Your task to perform on an android device: Open Reddit.com Image 0: 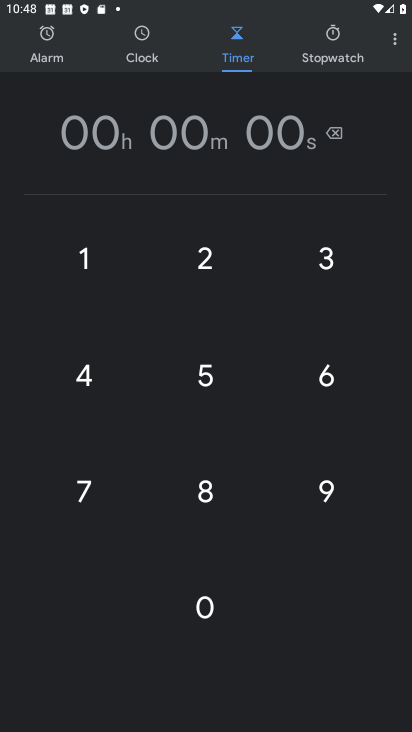
Step 0: drag from (149, 645) to (315, 86)
Your task to perform on an android device: Open Reddit.com Image 1: 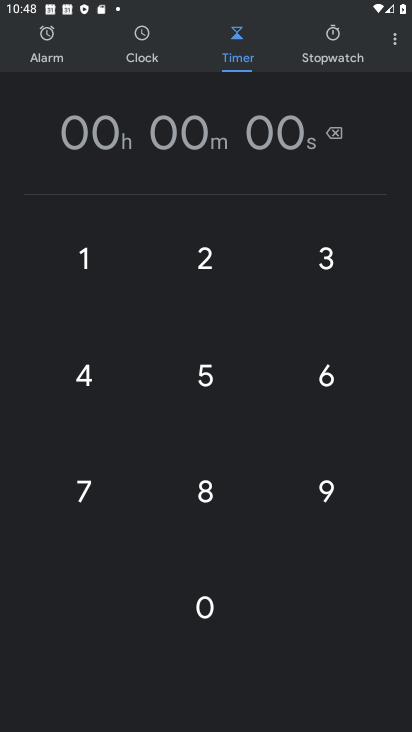
Step 1: press home button
Your task to perform on an android device: Open Reddit.com Image 2: 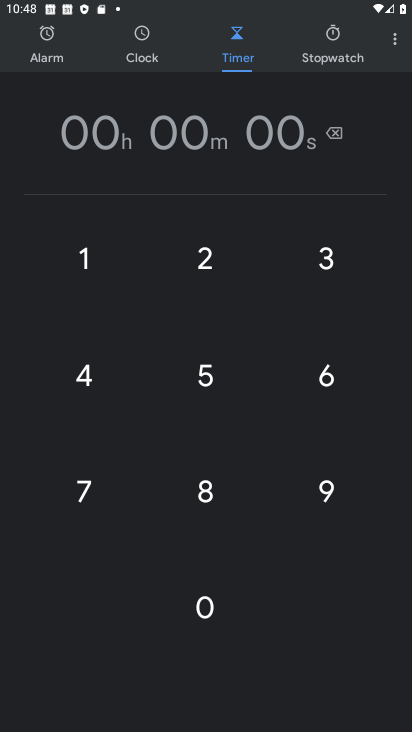
Step 2: press home button
Your task to perform on an android device: Open Reddit.com Image 3: 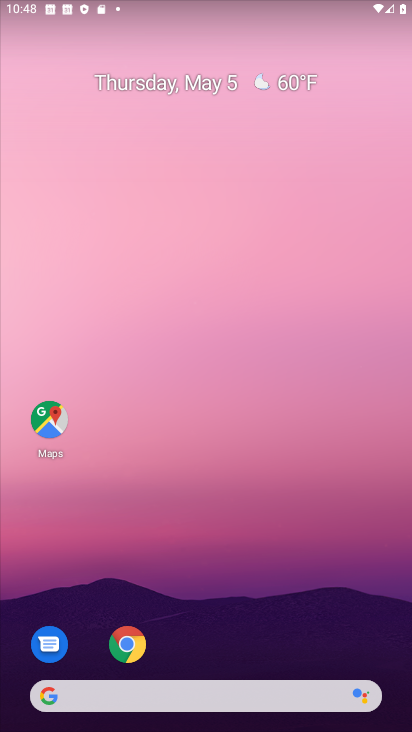
Step 3: drag from (189, 634) to (240, 115)
Your task to perform on an android device: Open Reddit.com Image 4: 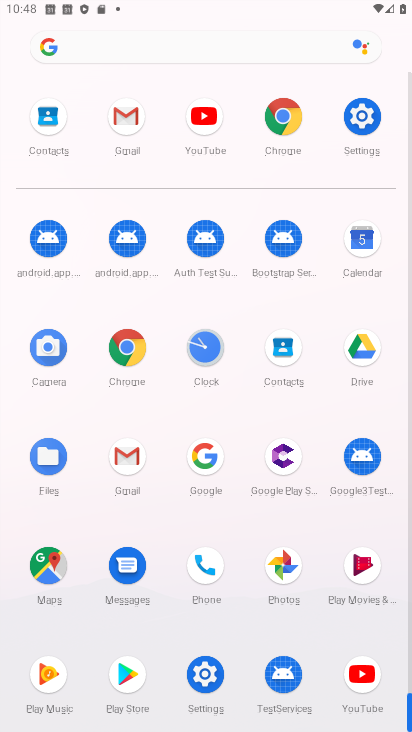
Step 4: click (375, 125)
Your task to perform on an android device: Open Reddit.com Image 5: 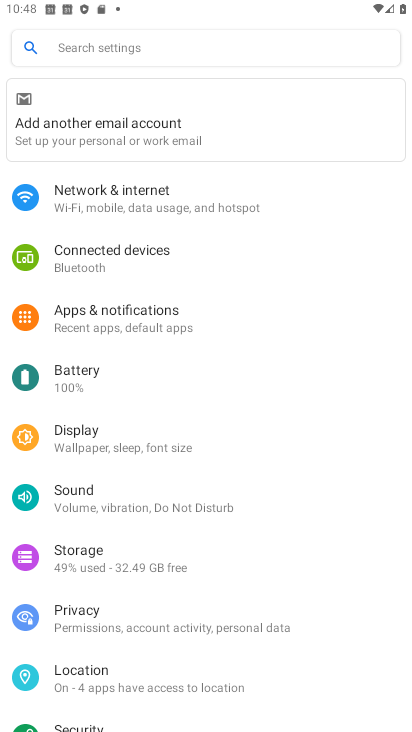
Step 5: drag from (194, 639) to (261, 223)
Your task to perform on an android device: Open Reddit.com Image 6: 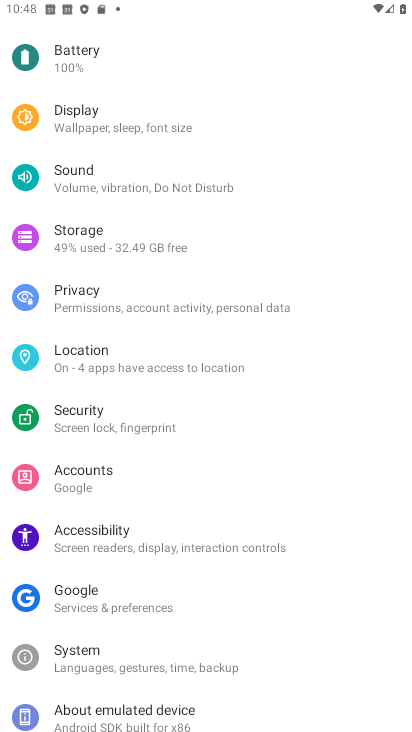
Step 6: drag from (197, 698) to (223, 144)
Your task to perform on an android device: Open Reddit.com Image 7: 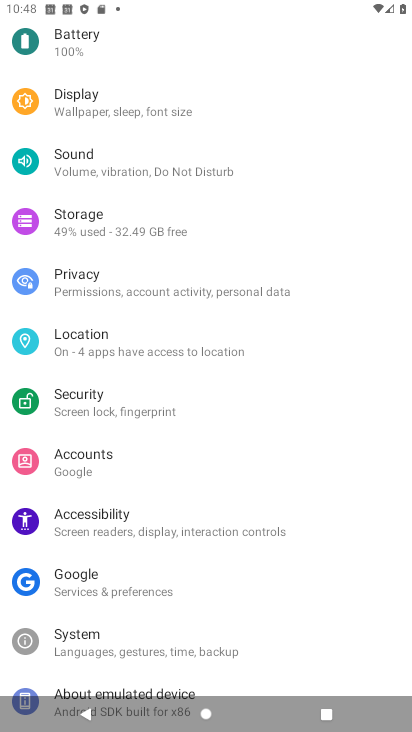
Step 7: drag from (182, 670) to (189, 134)
Your task to perform on an android device: Open Reddit.com Image 8: 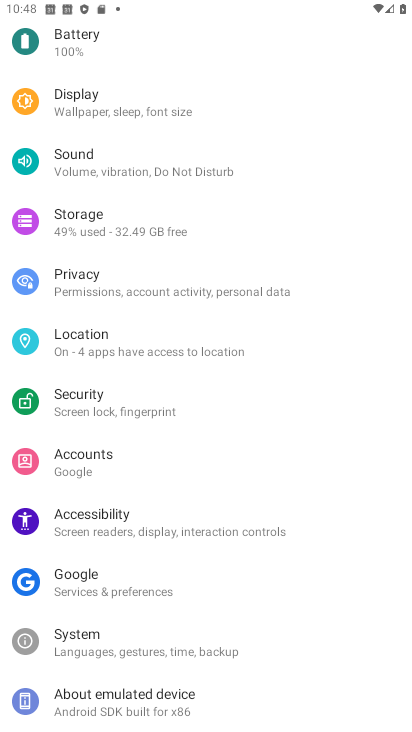
Step 8: drag from (184, 82) to (212, 179)
Your task to perform on an android device: Open Reddit.com Image 9: 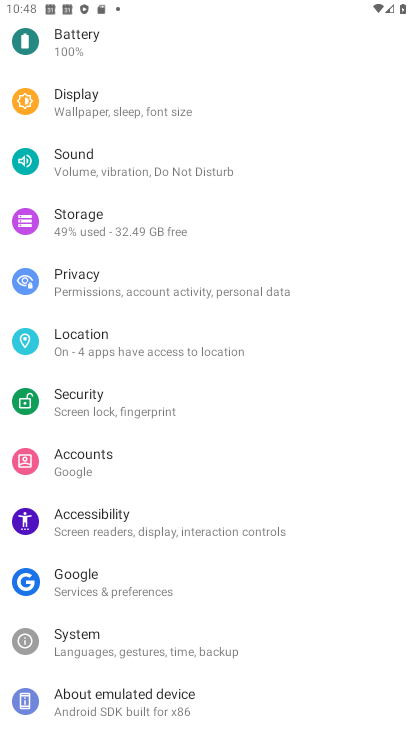
Step 9: drag from (142, 657) to (218, 454)
Your task to perform on an android device: Open Reddit.com Image 10: 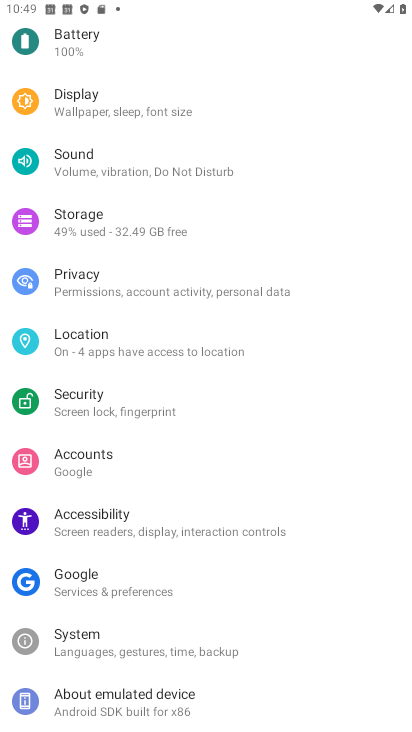
Step 10: drag from (183, 703) to (177, 294)
Your task to perform on an android device: Open Reddit.com Image 11: 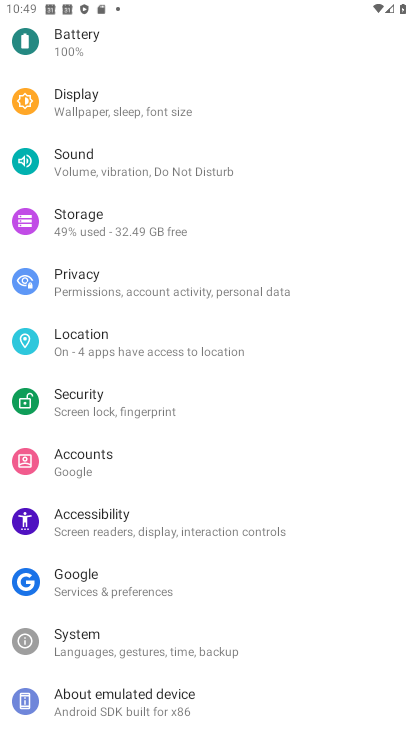
Step 11: drag from (230, 577) to (257, 316)
Your task to perform on an android device: Open Reddit.com Image 12: 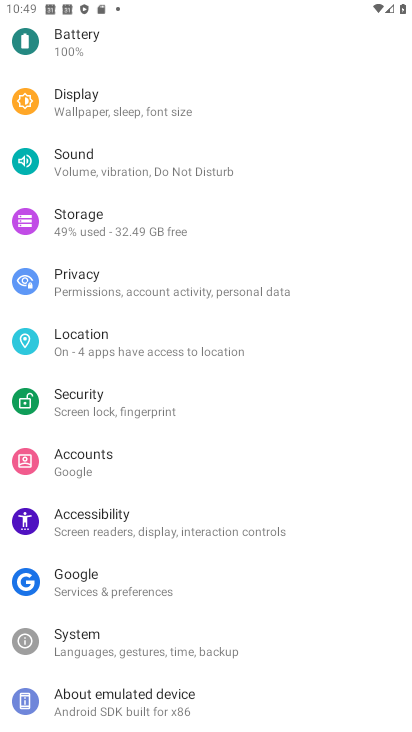
Step 12: press home button
Your task to perform on an android device: Open Reddit.com Image 13: 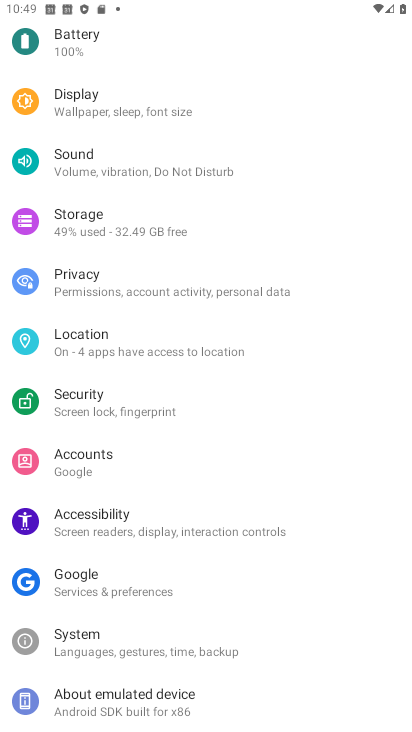
Step 13: press home button
Your task to perform on an android device: Open Reddit.com Image 14: 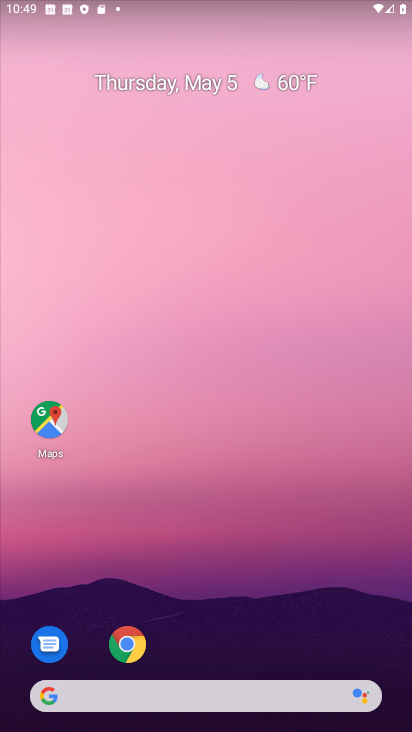
Step 14: drag from (211, 665) to (259, 320)
Your task to perform on an android device: Open Reddit.com Image 15: 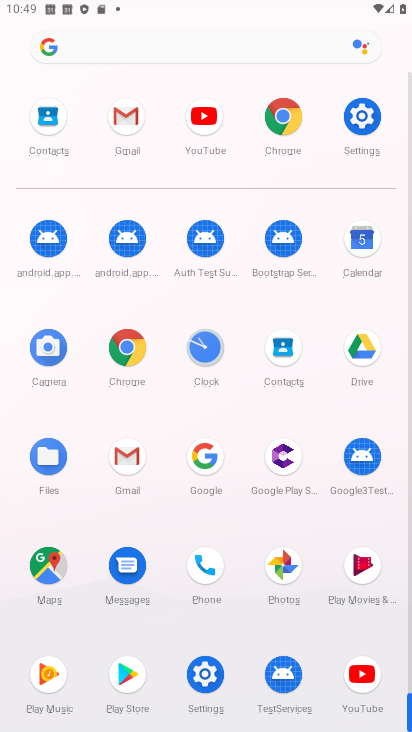
Step 15: drag from (174, 629) to (168, 304)
Your task to perform on an android device: Open Reddit.com Image 16: 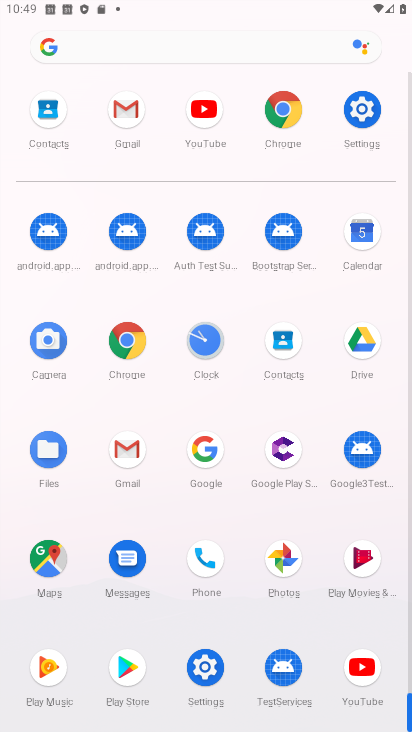
Step 16: drag from (164, 634) to (189, 314)
Your task to perform on an android device: Open Reddit.com Image 17: 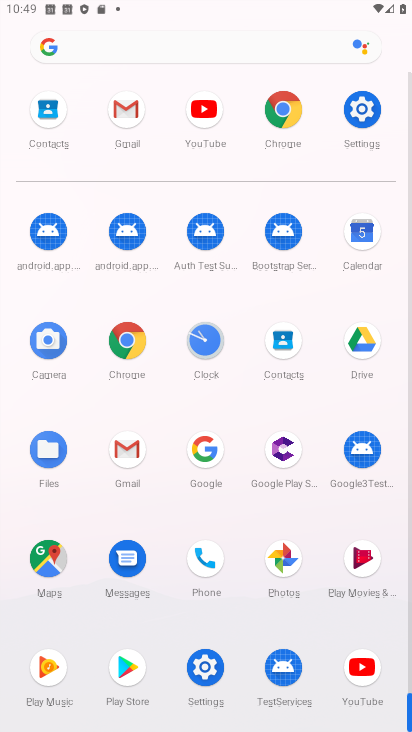
Step 17: drag from (168, 566) to (237, 161)
Your task to perform on an android device: Open Reddit.com Image 18: 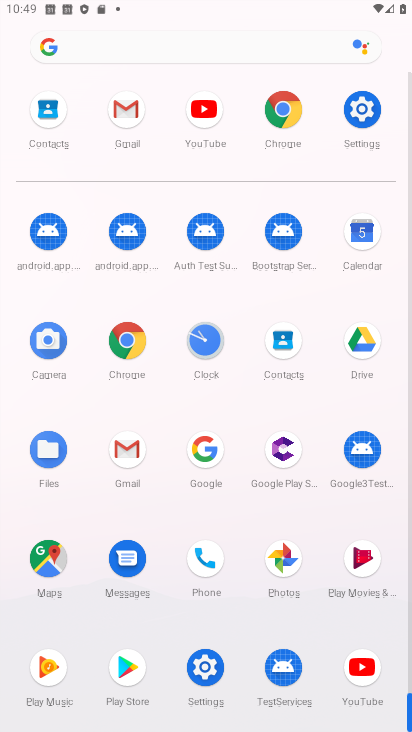
Step 18: drag from (261, 612) to (251, 137)
Your task to perform on an android device: Open Reddit.com Image 19: 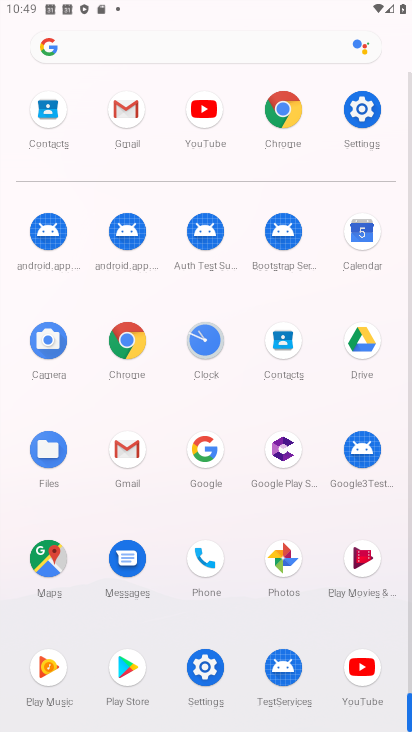
Step 19: drag from (256, 630) to (258, 132)
Your task to perform on an android device: Open Reddit.com Image 20: 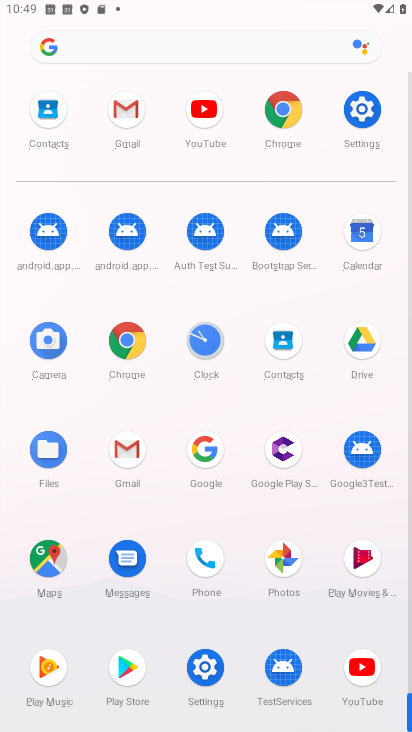
Step 20: drag from (249, 642) to (255, 221)
Your task to perform on an android device: Open Reddit.com Image 21: 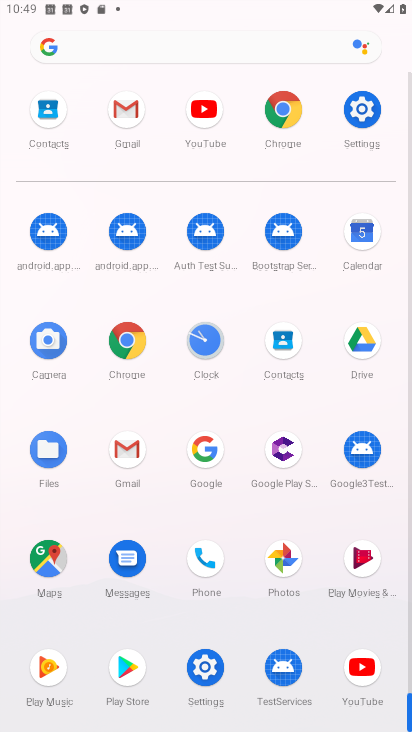
Step 21: click (213, 36)
Your task to perform on an android device: Open Reddit.com Image 22: 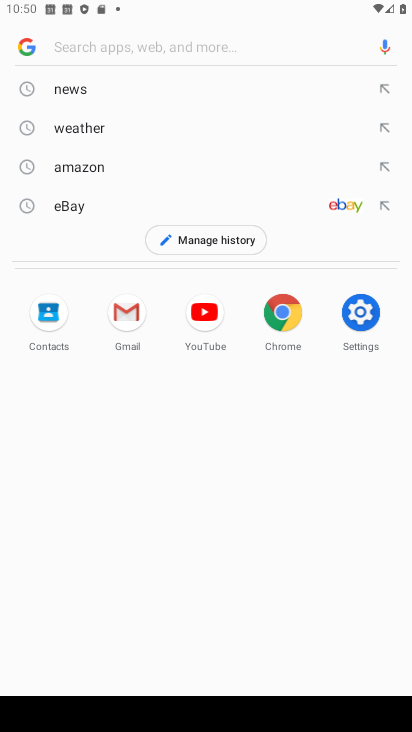
Step 22: type "reddit.com"
Your task to perform on an android device: Open Reddit.com Image 23: 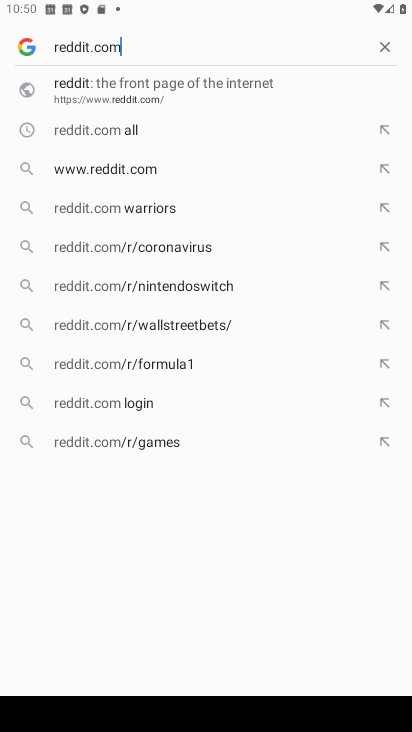
Step 23: click (125, 174)
Your task to perform on an android device: Open Reddit.com Image 24: 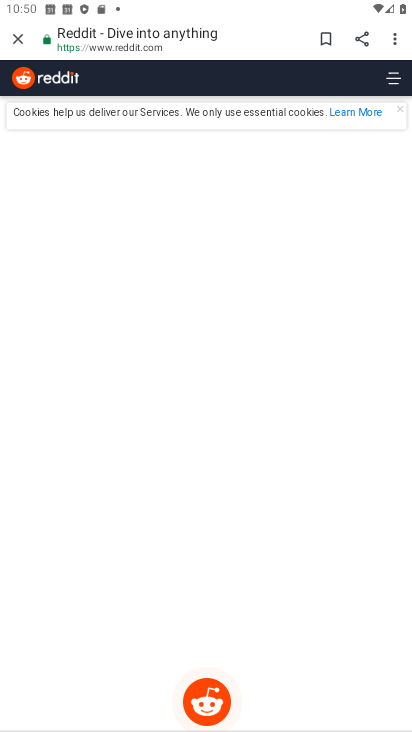
Step 24: task complete